Your task to perform on an android device: Go to battery settings Image 0: 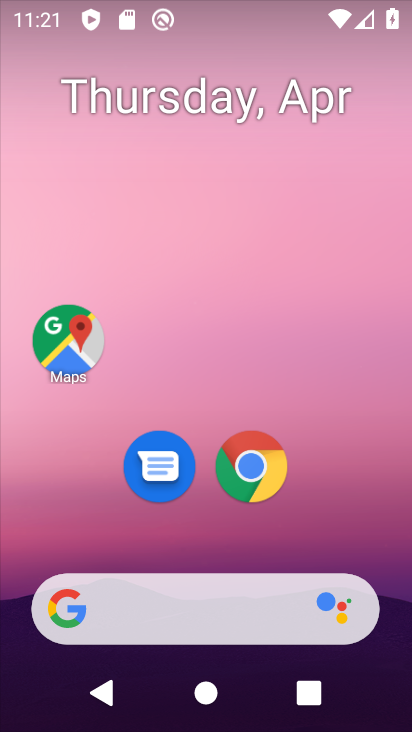
Step 0: drag from (315, 510) to (261, 60)
Your task to perform on an android device: Go to battery settings Image 1: 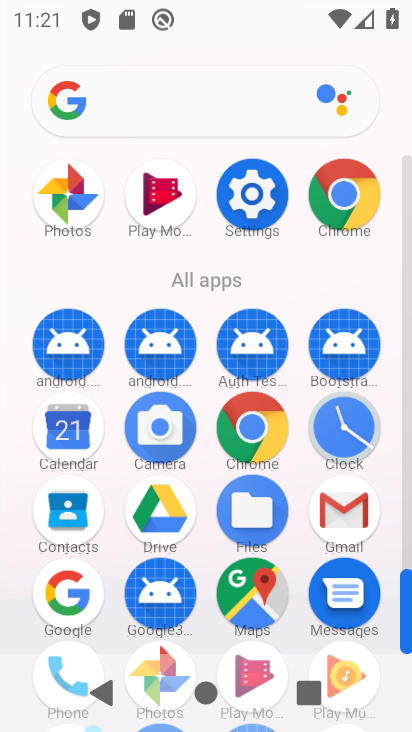
Step 1: drag from (11, 494) to (6, 191)
Your task to perform on an android device: Go to battery settings Image 2: 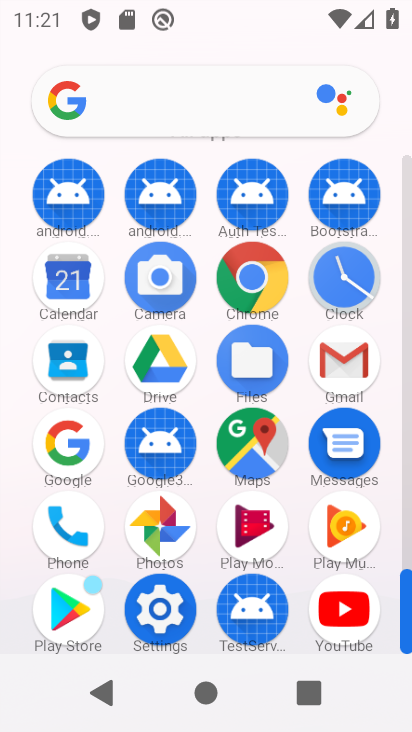
Step 2: click (158, 606)
Your task to perform on an android device: Go to battery settings Image 3: 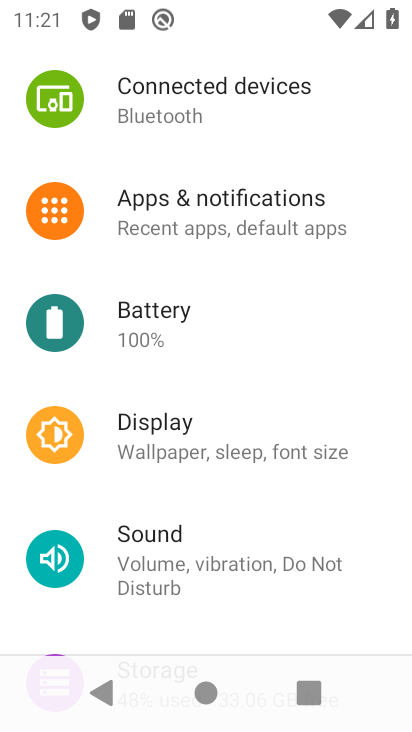
Step 3: click (188, 131)
Your task to perform on an android device: Go to battery settings Image 4: 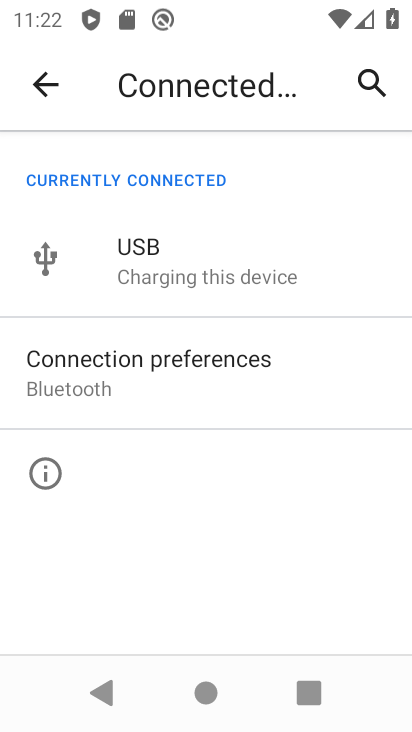
Step 4: click (48, 89)
Your task to perform on an android device: Go to battery settings Image 5: 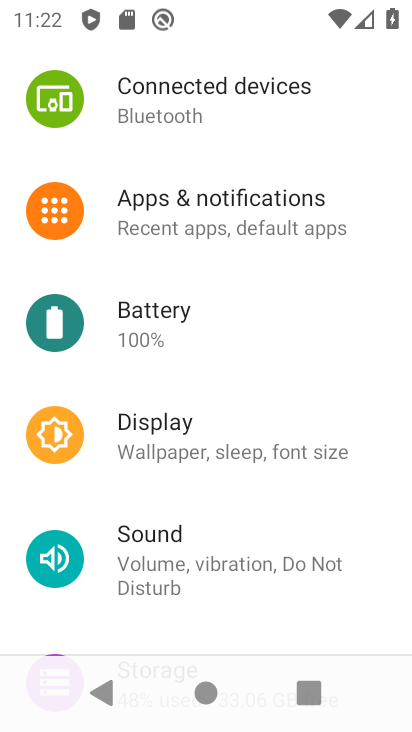
Step 5: click (193, 327)
Your task to perform on an android device: Go to battery settings Image 6: 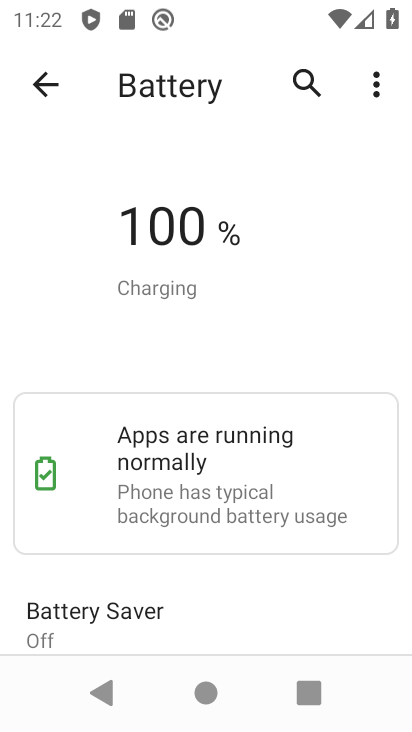
Step 6: task complete